Your task to perform on an android device: Add "logitech g933" to the cart on walmart.com, then select checkout. Image 0: 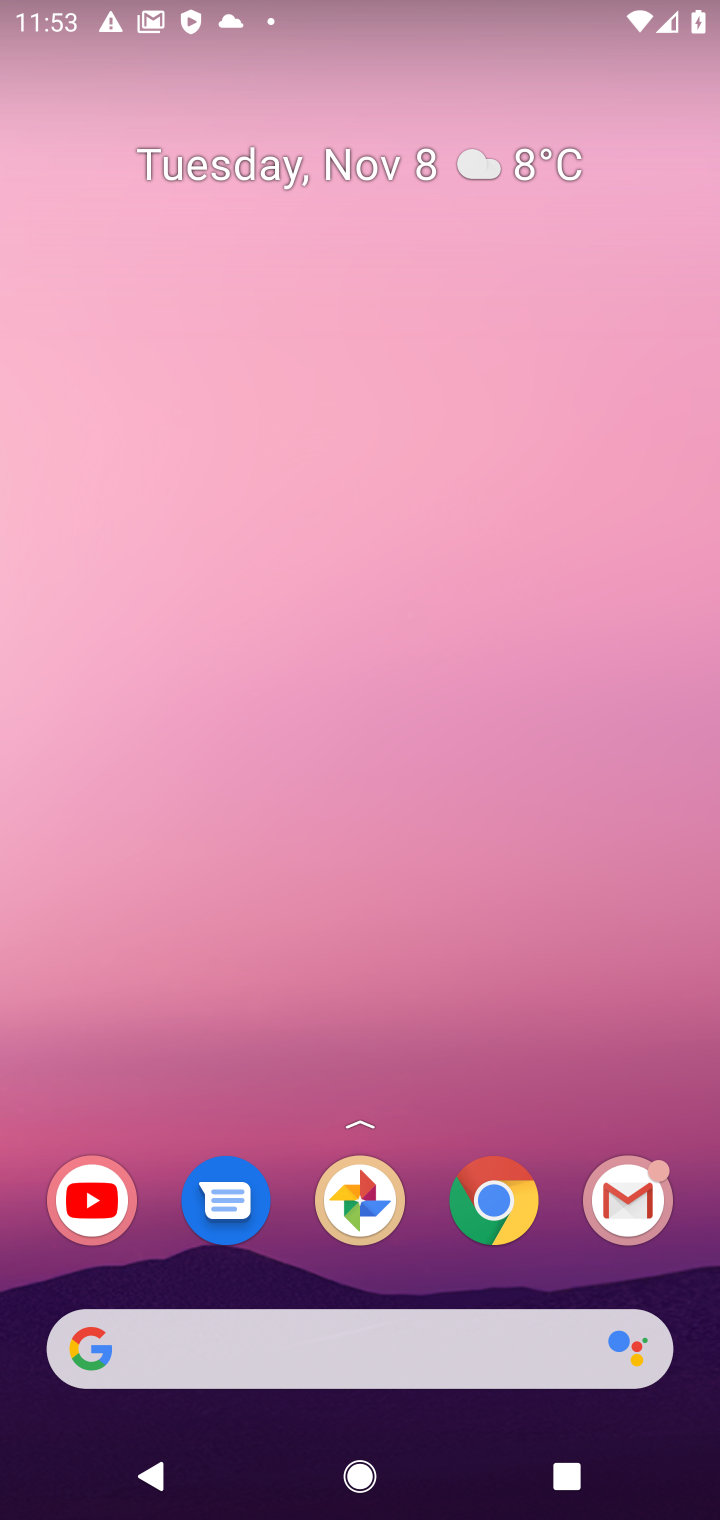
Step 0: click (204, 1372)
Your task to perform on an android device: Add "logitech g933" to the cart on walmart.com, then select checkout. Image 1: 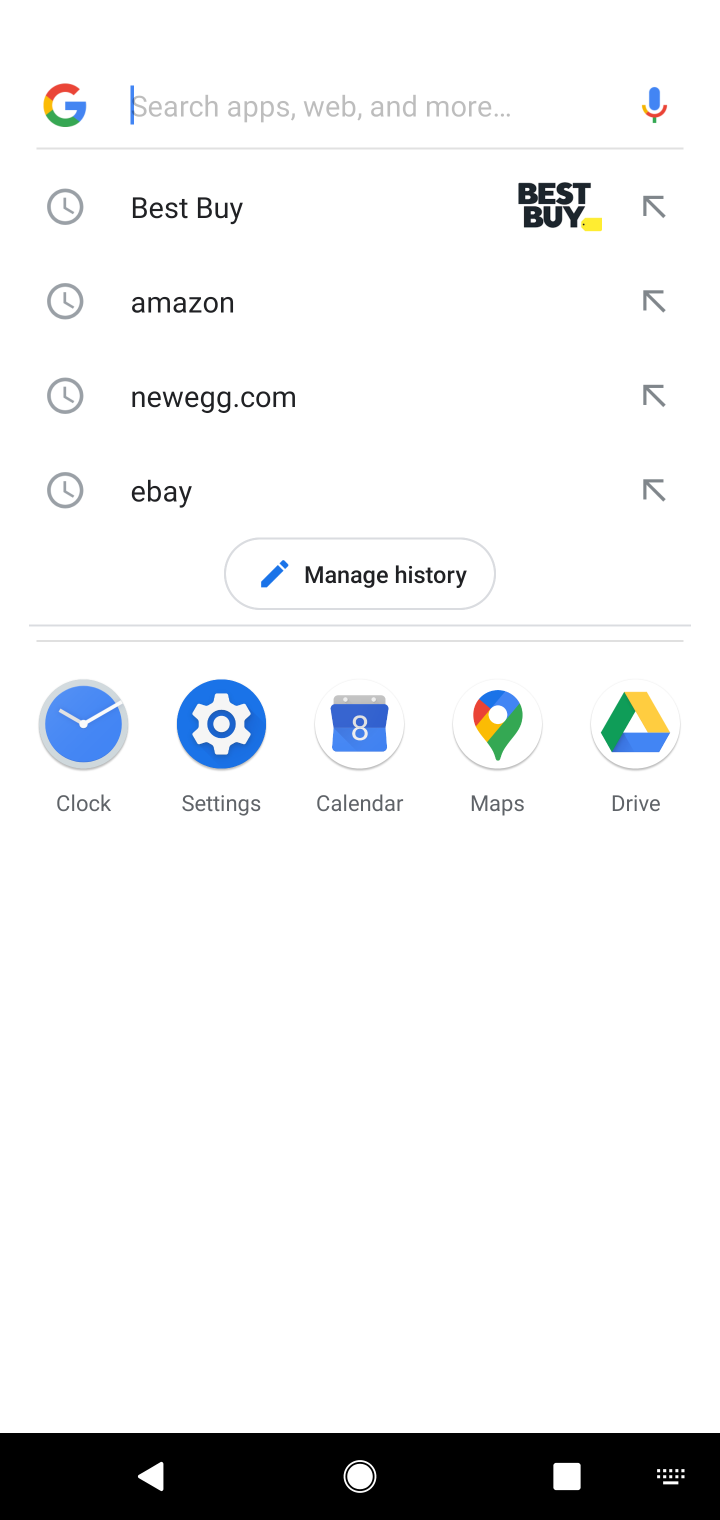
Step 1: type "walmart"
Your task to perform on an android device: Add "logitech g933" to the cart on walmart.com, then select checkout. Image 2: 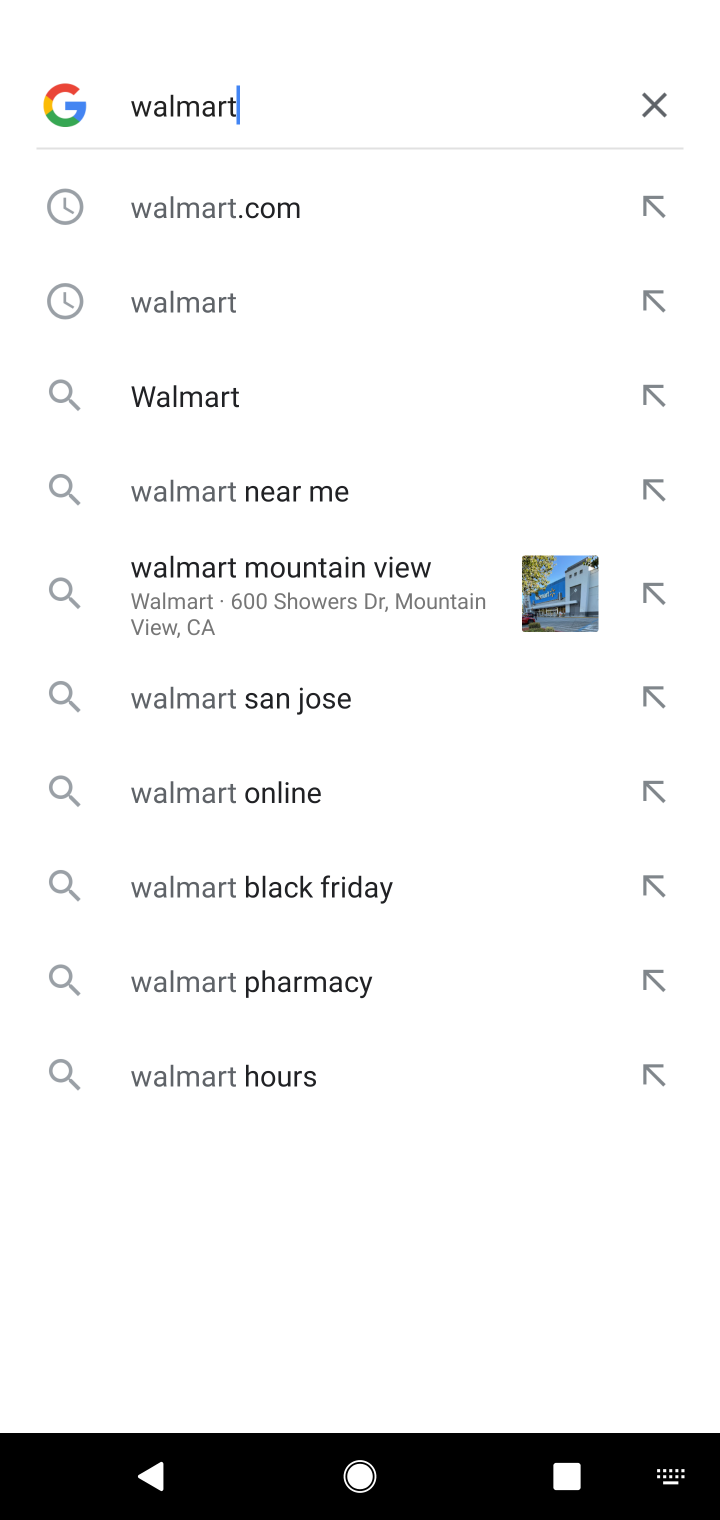
Step 2: click (235, 231)
Your task to perform on an android device: Add "logitech g933" to the cart on walmart.com, then select checkout. Image 3: 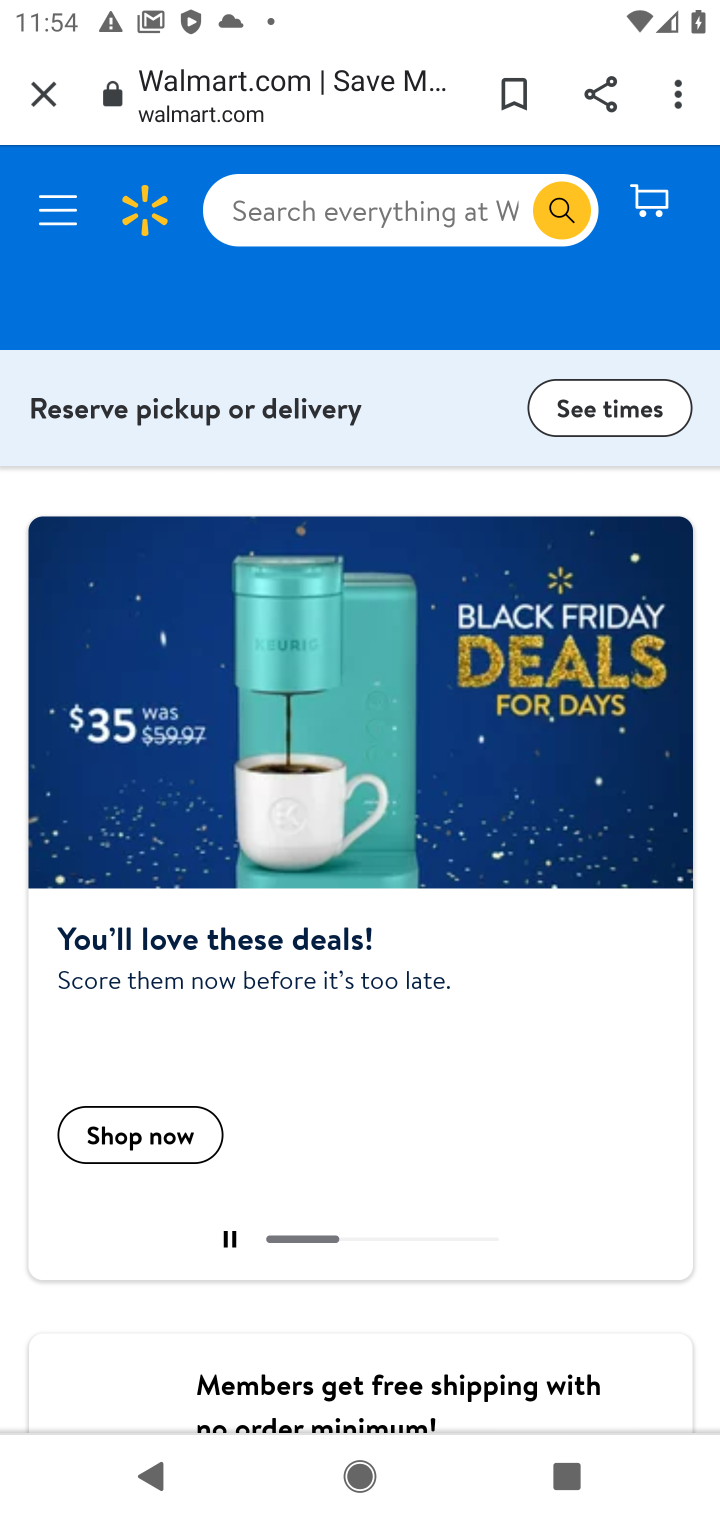
Step 3: task complete